Your task to perform on an android device: Turn off the flashlight Image 0: 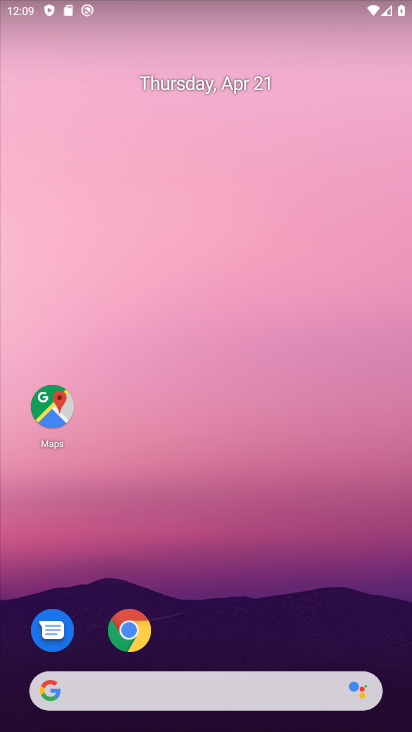
Step 0: drag from (227, 547) to (217, 232)
Your task to perform on an android device: Turn off the flashlight Image 1: 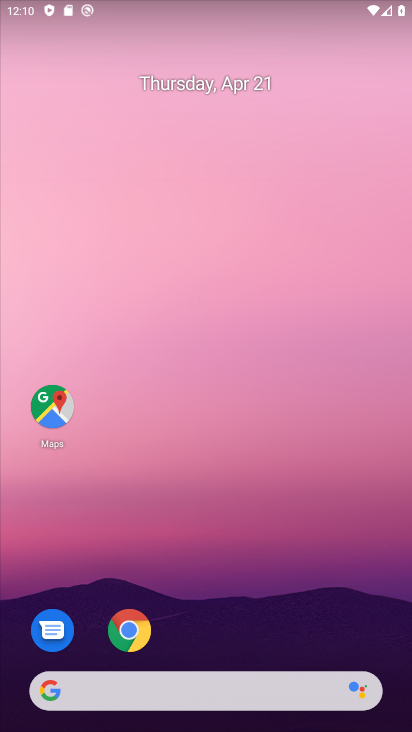
Step 1: drag from (217, 439) to (186, 2)
Your task to perform on an android device: Turn off the flashlight Image 2: 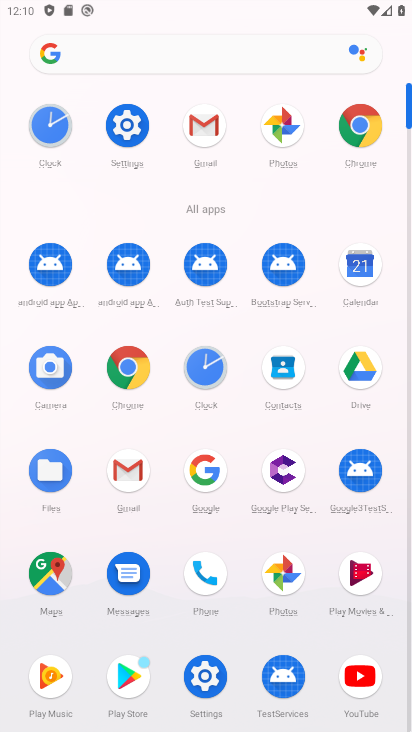
Step 2: click (121, 128)
Your task to perform on an android device: Turn off the flashlight Image 3: 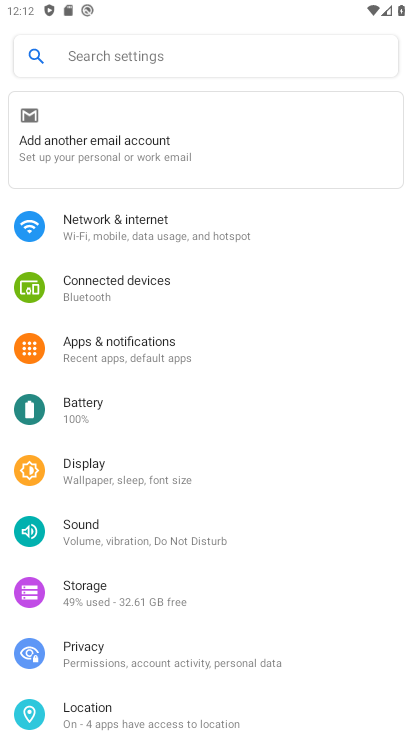
Step 3: drag from (210, 556) to (187, 120)
Your task to perform on an android device: Turn off the flashlight Image 4: 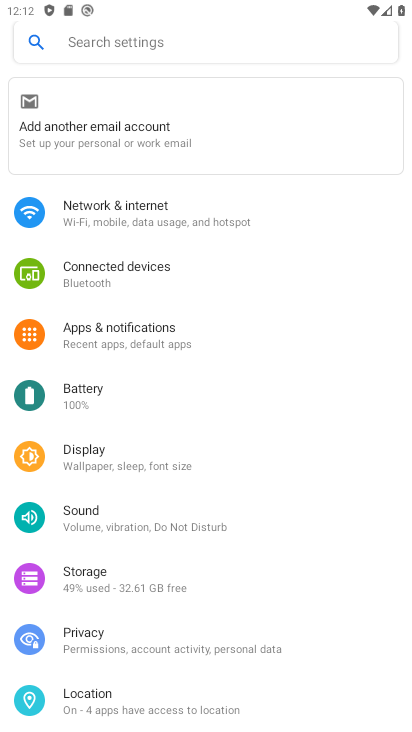
Step 4: click (74, 393)
Your task to perform on an android device: Turn off the flashlight Image 5: 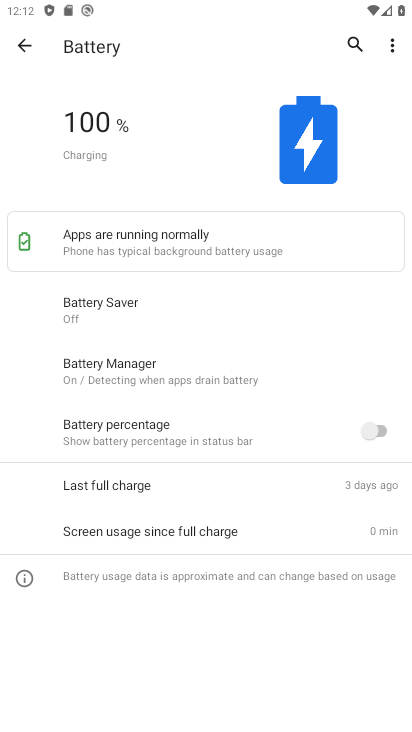
Step 5: click (23, 50)
Your task to perform on an android device: Turn off the flashlight Image 6: 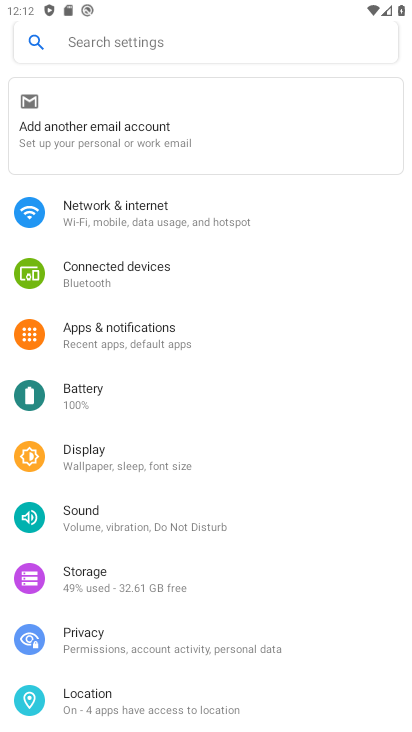
Step 6: task complete